Your task to perform on an android device: turn on data saver in the chrome app Image 0: 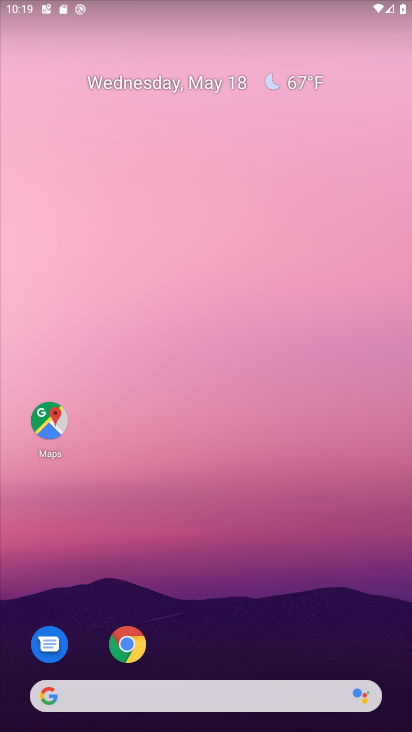
Step 0: click (129, 646)
Your task to perform on an android device: turn on data saver in the chrome app Image 1: 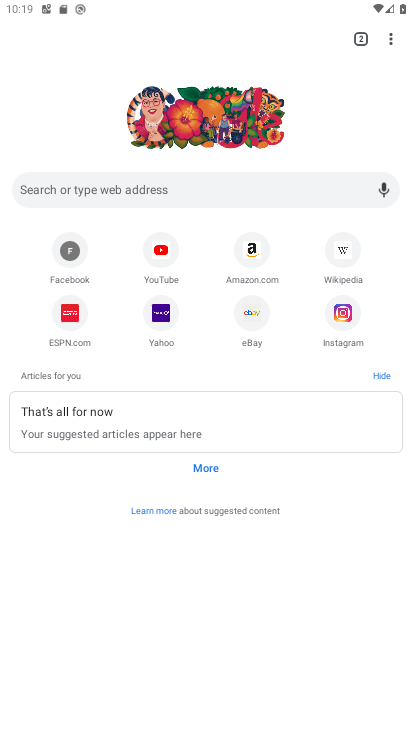
Step 1: click (390, 37)
Your task to perform on an android device: turn on data saver in the chrome app Image 2: 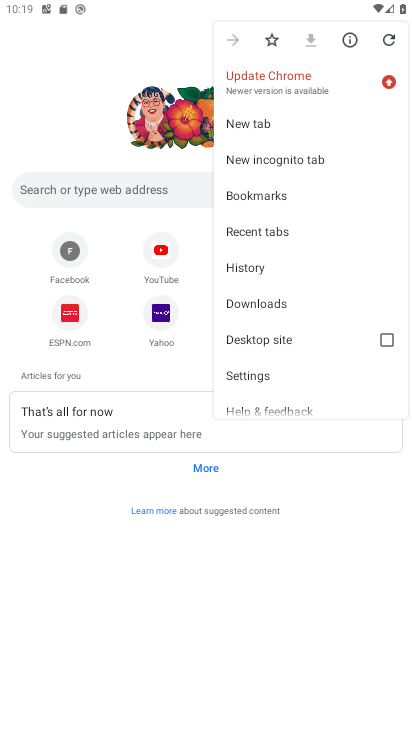
Step 2: click (244, 377)
Your task to perform on an android device: turn on data saver in the chrome app Image 3: 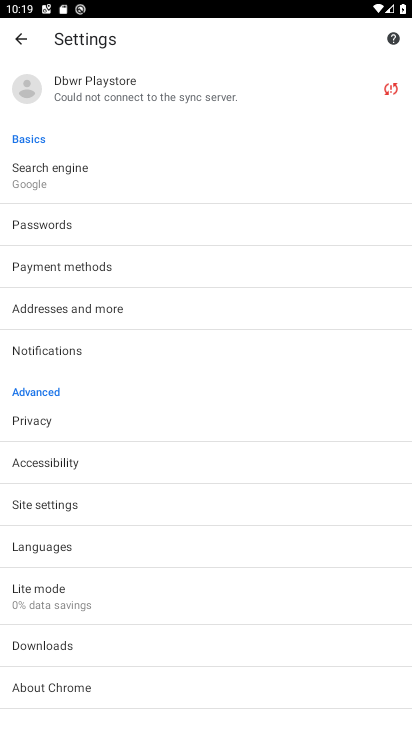
Step 3: drag from (105, 513) to (144, 436)
Your task to perform on an android device: turn on data saver in the chrome app Image 4: 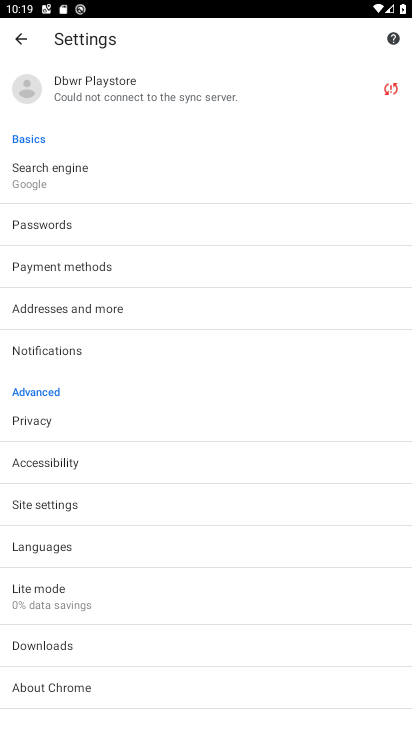
Step 4: click (46, 597)
Your task to perform on an android device: turn on data saver in the chrome app Image 5: 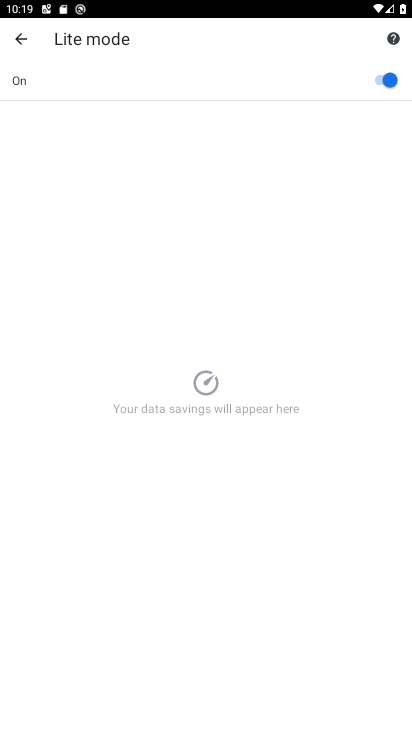
Step 5: task complete